Your task to perform on an android device: What's the weather today? Image 0: 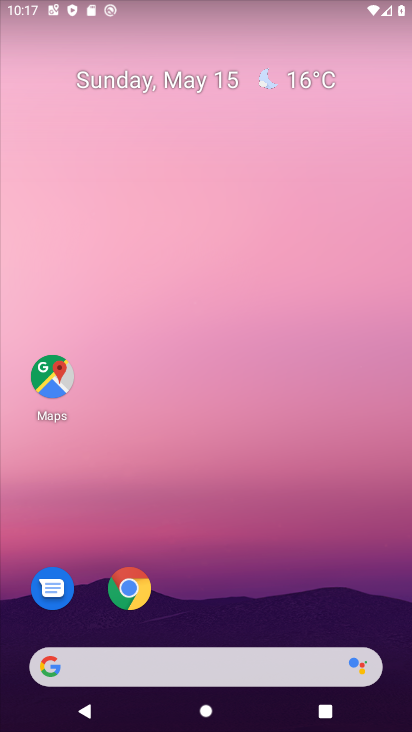
Step 0: click (209, 657)
Your task to perform on an android device: What's the weather today? Image 1: 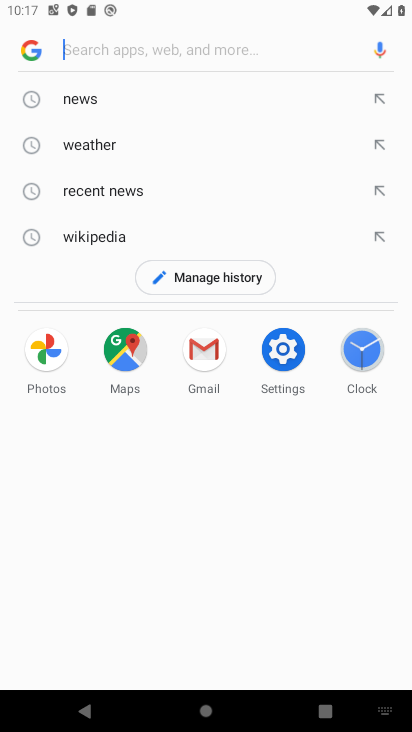
Step 1: type "weather today"
Your task to perform on an android device: What's the weather today? Image 2: 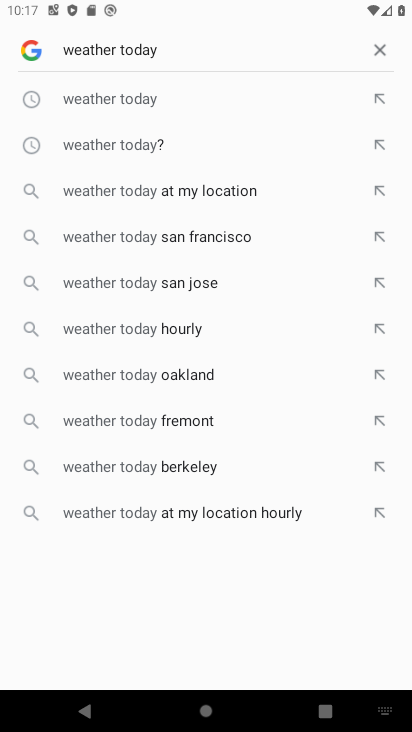
Step 2: click (163, 106)
Your task to perform on an android device: What's the weather today? Image 3: 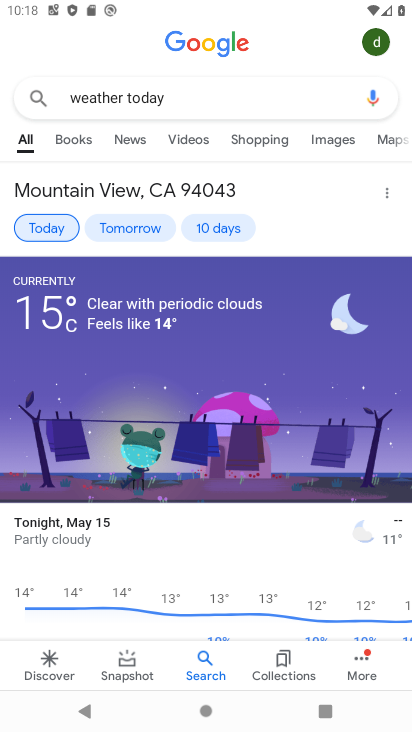
Step 3: task complete